Your task to perform on an android device: Check the weather Image 0: 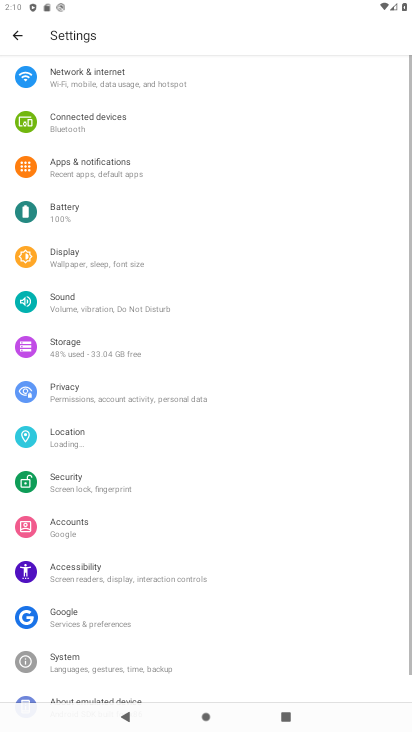
Step 0: press home button
Your task to perform on an android device: Check the weather Image 1: 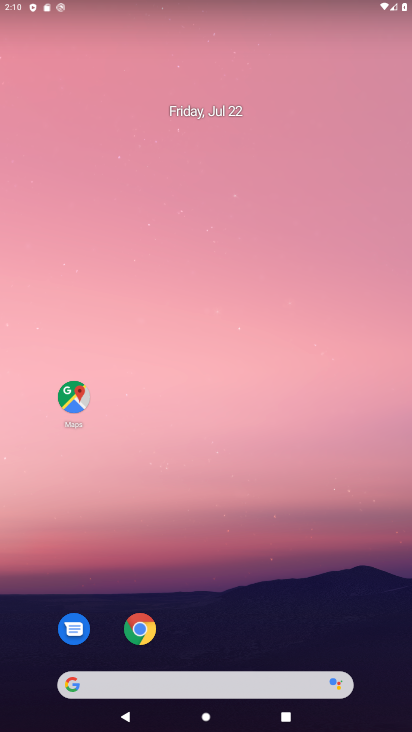
Step 1: click (148, 629)
Your task to perform on an android device: Check the weather Image 2: 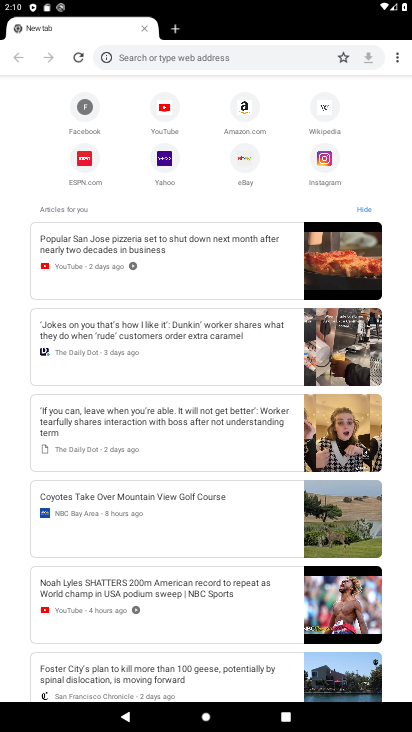
Step 2: click (170, 56)
Your task to perform on an android device: Check the weather Image 3: 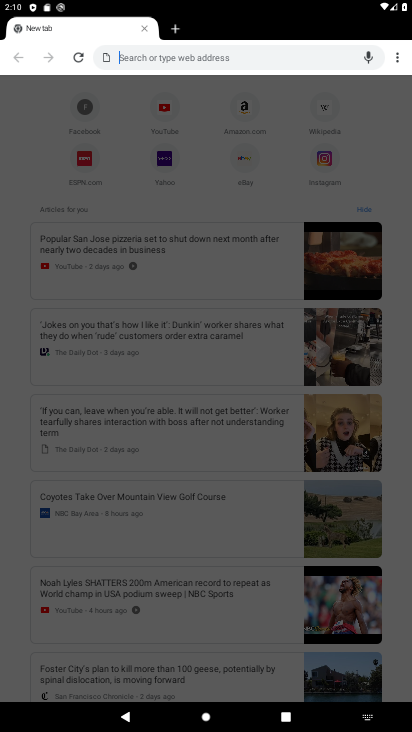
Step 3: type "weather"
Your task to perform on an android device: Check the weather Image 4: 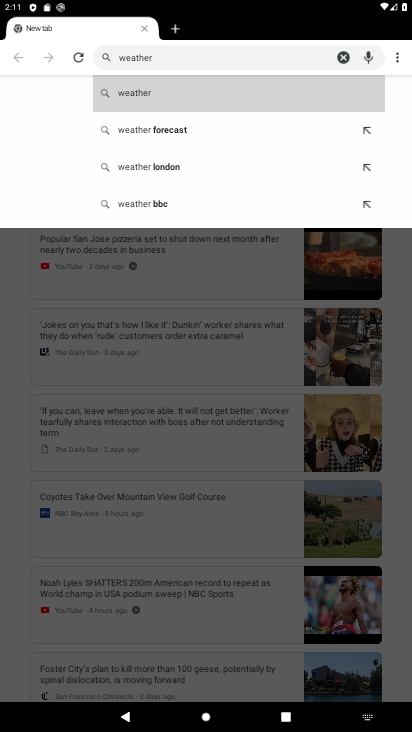
Step 4: click (122, 94)
Your task to perform on an android device: Check the weather Image 5: 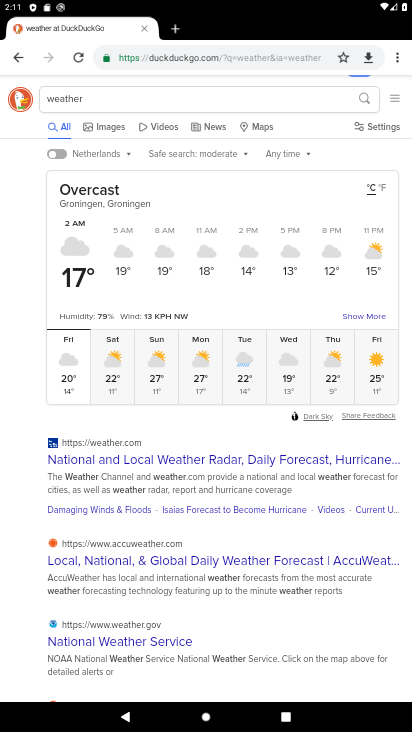
Step 5: task complete